Your task to perform on an android device: turn on priority inbox in the gmail app Image 0: 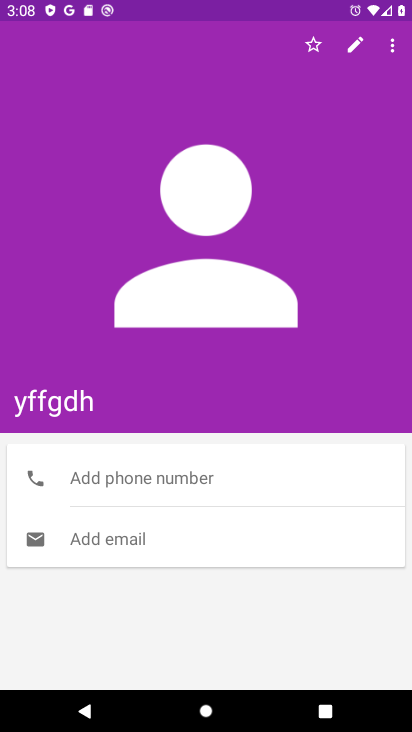
Step 0: press home button
Your task to perform on an android device: turn on priority inbox in the gmail app Image 1: 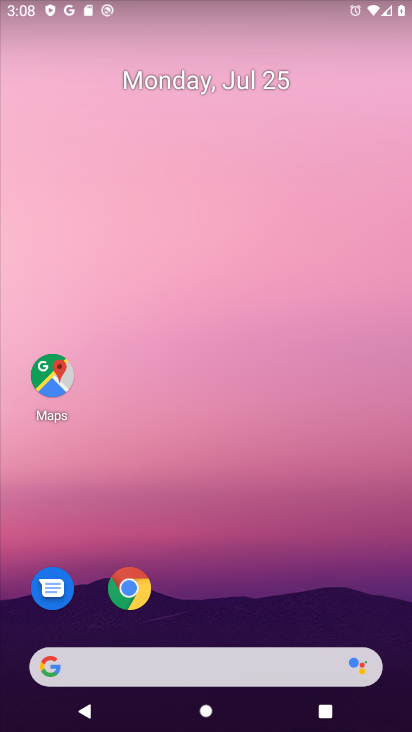
Step 1: click (241, 194)
Your task to perform on an android device: turn on priority inbox in the gmail app Image 2: 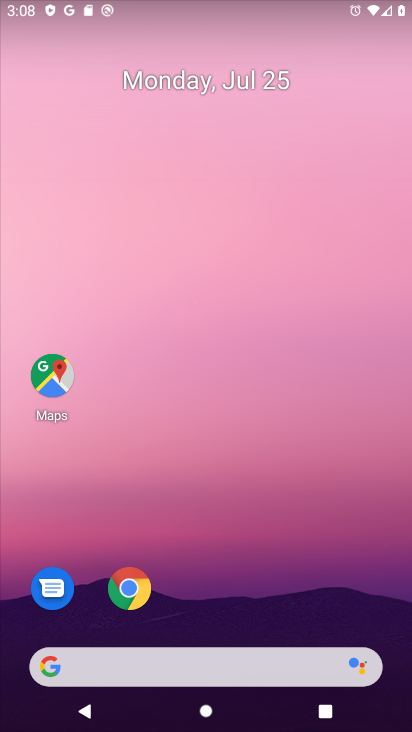
Step 2: drag from (223, 616) to (259, 88)
Your task to perform on an android device: turn on priority inbox in the gmail app Image 3: 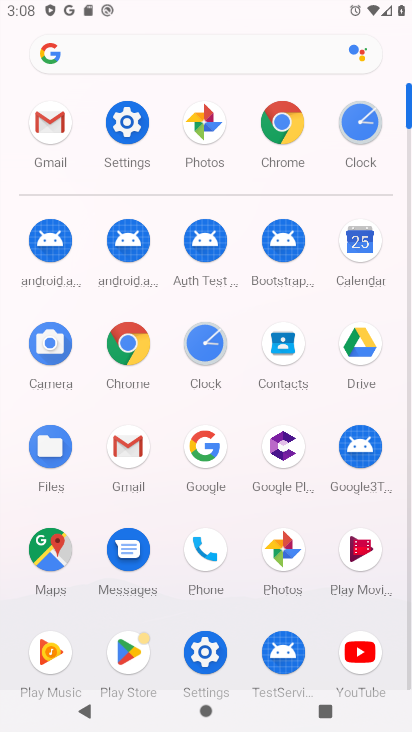
Step 3: click (48, 115)
Your task to perform on an android device: turn on priority inbox in the gmail app Image 4: 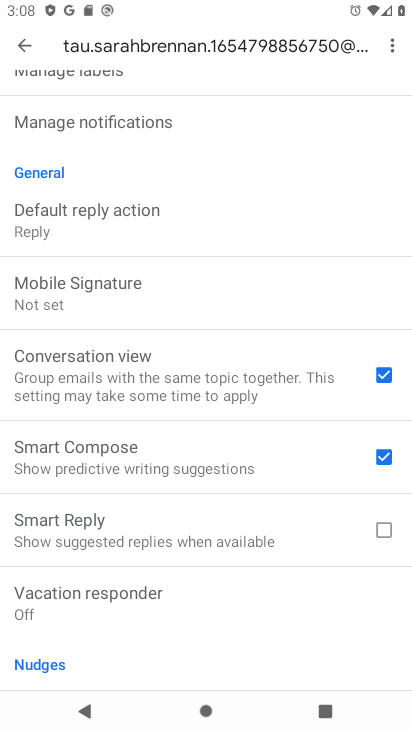
Step 4: drag from (123, 169) to (209, 694)
Your task to perform on an android device: turn on priority inbox in the gmail app Image 5: 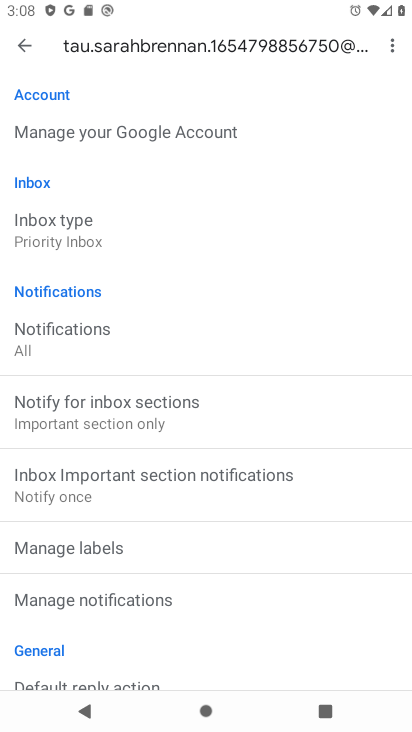
Step 5: click (112, 238)
Your task to perform on an android device: turn on priority inbox in the gmail app Image 6: 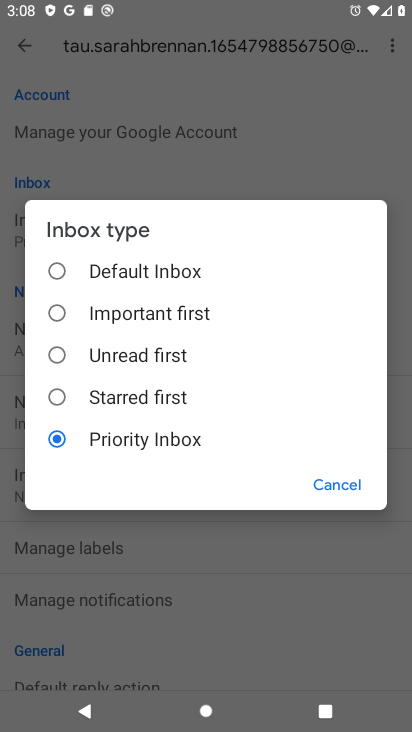
Step 6: click (103, 443)
Your task to perform on an android device: turn on priority inbox in the gmail app Image 7: 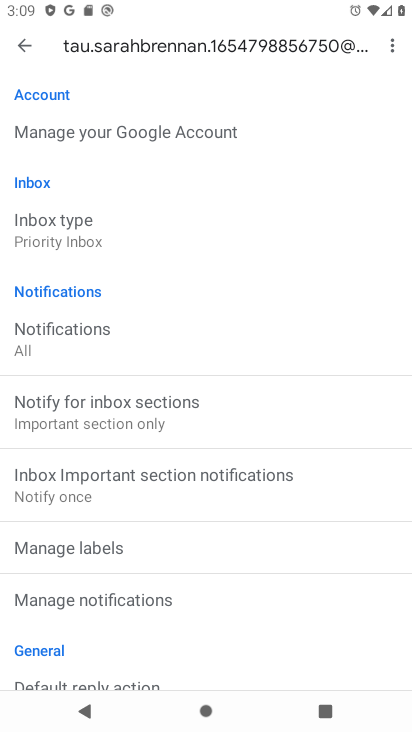
Step 7: task complete